Your task to perform on an android device: Go to settings Image 0: 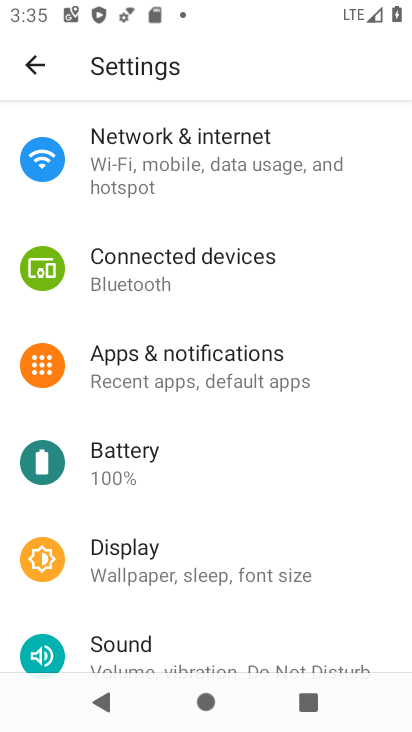
Step 0: drag from (288, 616) to (266, 186)
Your task to perform on an android device: Go to settings Image 1: 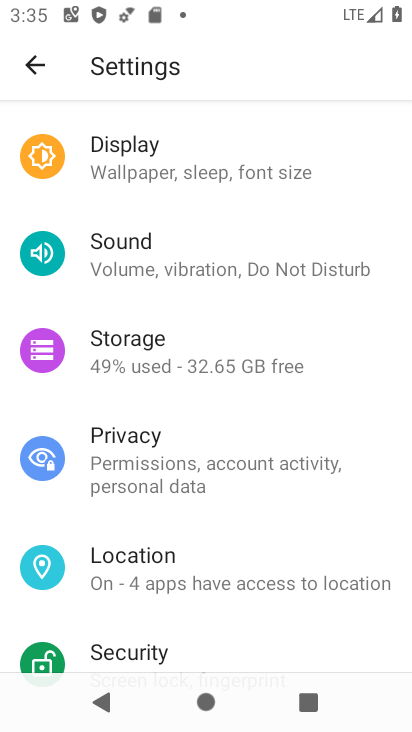
Step 1: task complete